Your task to perform on an android device: toggle notifications settings in the gmail app Image 0: 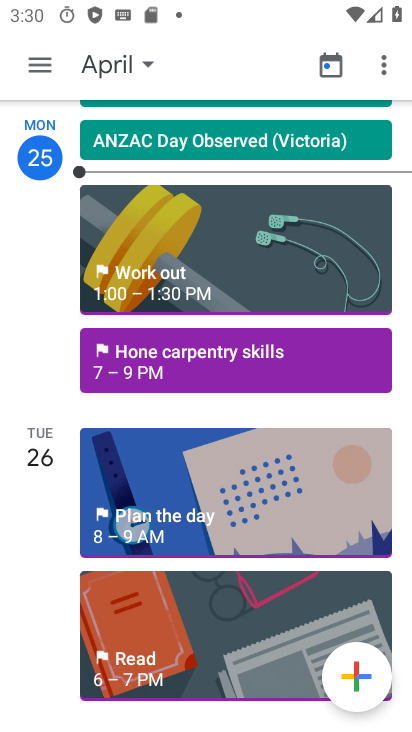
Step 0: press home button
Your task to perform on an android device: toggle notifications settings in the gmail app Image 1: 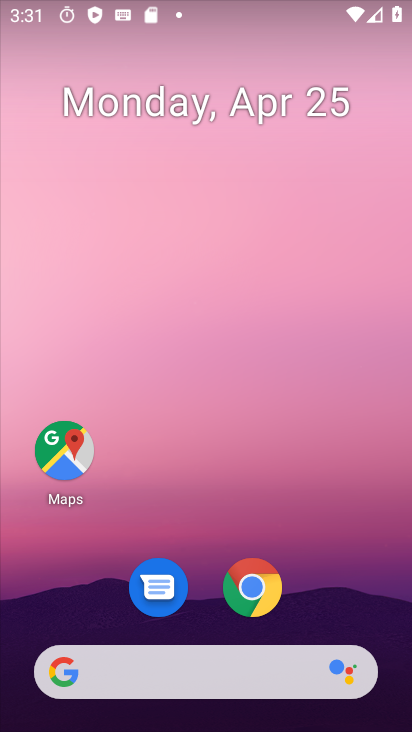
Step 1: drag from (306, 319) to (251, 6)
Your task to perform on an android device: toggle notifications settings in the gmail app Image 2: 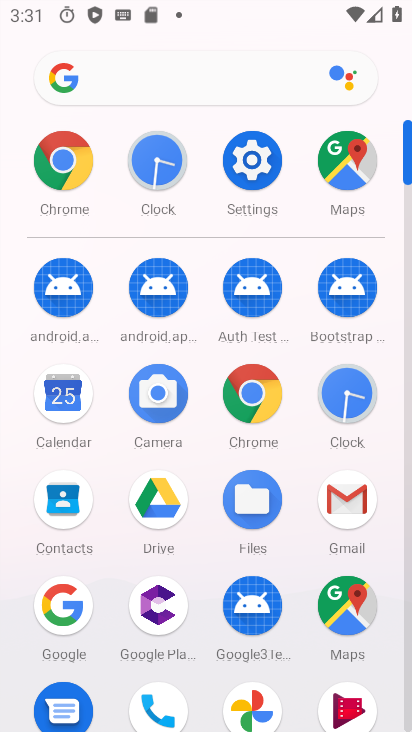
Step 2: click (358, 512)
Your task to perform on an android device: toggle notifications settings in the gmail app Image 3: 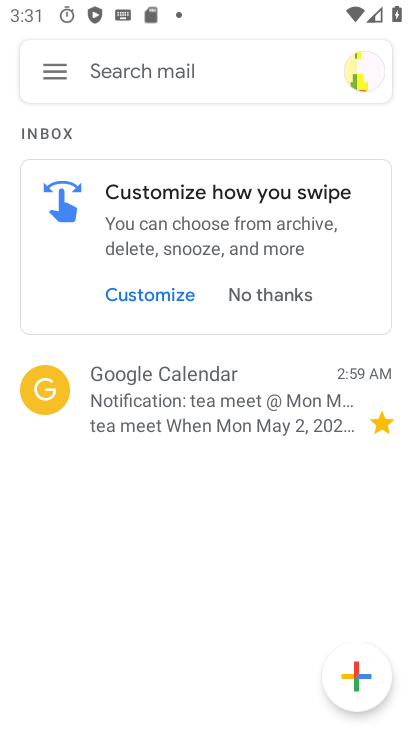
Step 3: click (374, 76)
Your task to perform on an android device: toggle notifications settings in the gmail app Image 4: 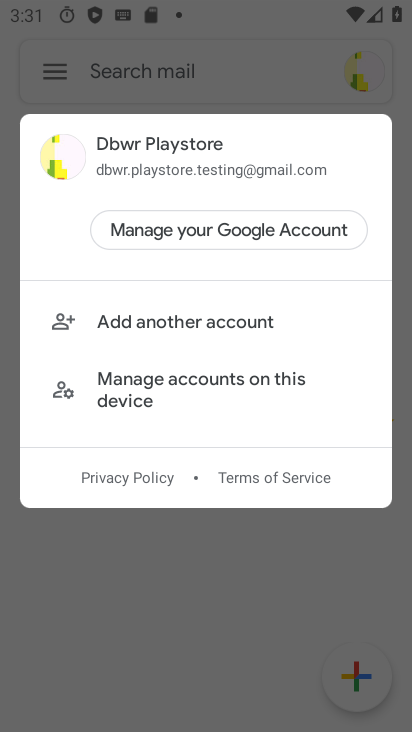
Step 4: click (221, 550)
Your task to perform on an android device: toggle notifications settings in the gmail app Image 5: 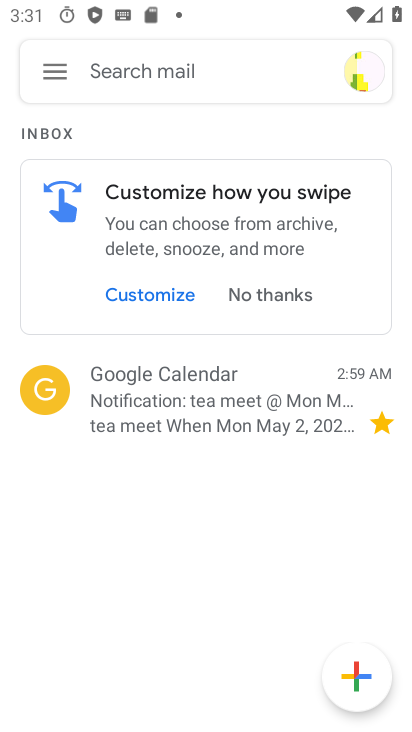
Step 5: click (52, 53)
Your task to perform on an android device: toggle notifications settings in the gmail app Image 6: 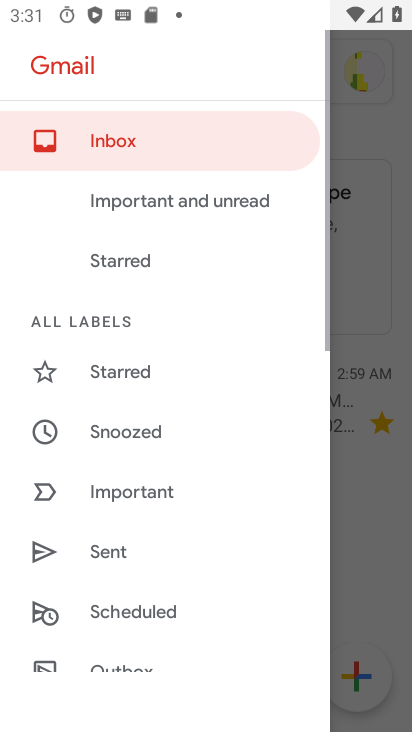
Step 6: drag from (165, 512) to (172, 188)
Your task to perform on an android device: toggle notifications settings in the gmail app Image 7: 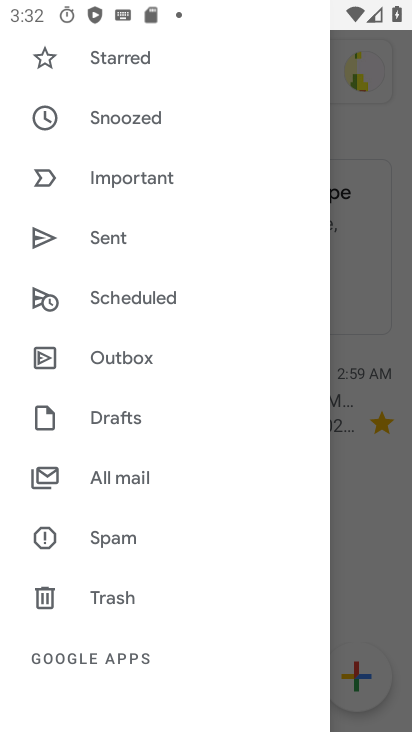
Step 7: drag from (175, 620) to (193, 232)
Your task to perform on an android device: toggle notifications settings in the gmail app Image 8: 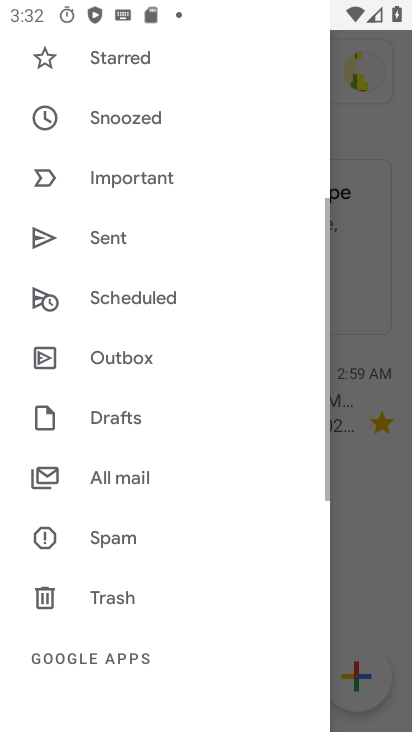
Step 8: drag from (125, 635) to (149, 420)
Your task to perform on an android device: toggle notifications settings in the gmail app Image 9: 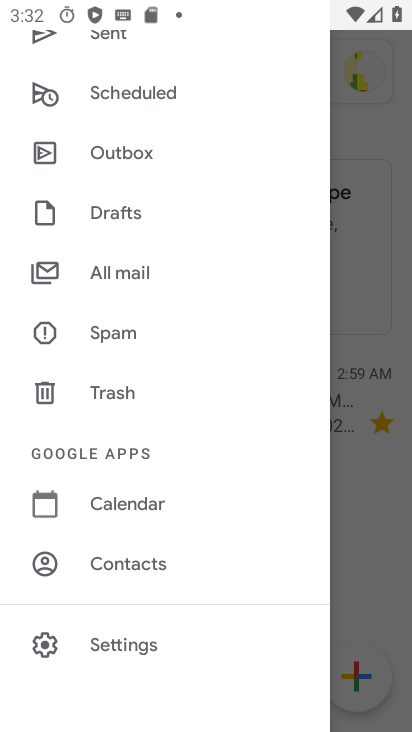
Step 9: click (138, 657)
Your task to perform on an android device: toggle notifications settings in the gmail app Image 10: 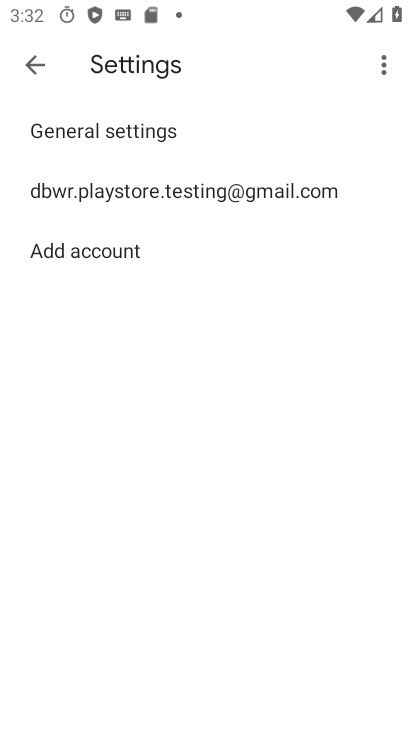
Step 10: click (288, 196)
Your task to perform on an android device: toggle notifications settings in the gmail app Image 11: 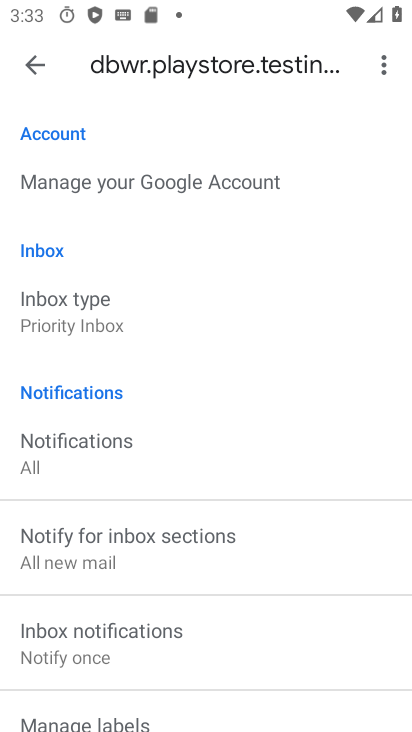
Step 11: drag from (192, 575) to (267, 130)
Your task to perform on an android device: toggle notifications settings in the gmail app Image 12: 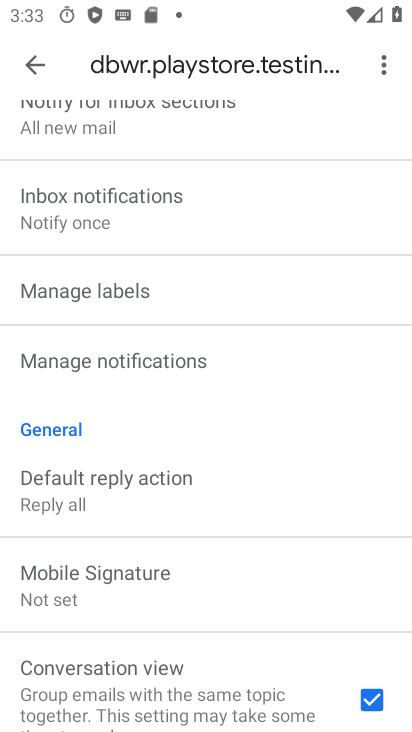
Step 12: click (168, 358)
Your task to perform on an android device: toggle notifications settings in the gmail app Image 13: 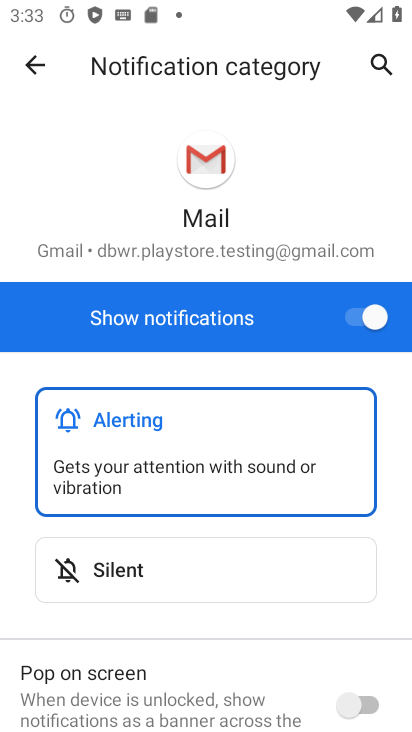
Step 13: click (374, 303)
Your task to perform on an android device: toggle notifications settings in the gmail app Image 14: 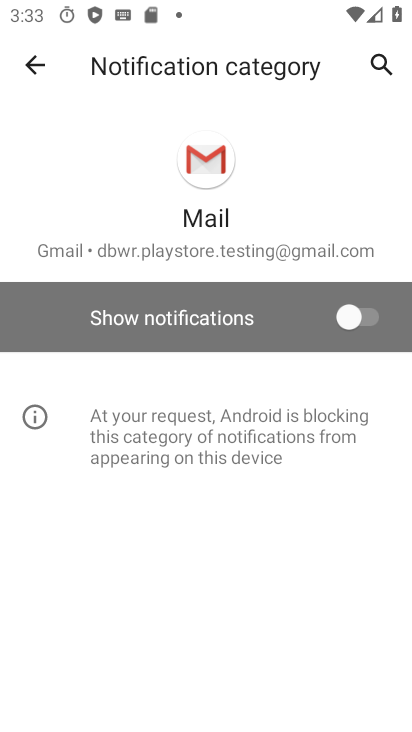
Step 14: task complete